Your task to perform on an android device: open app "Truecaller" Image 0: 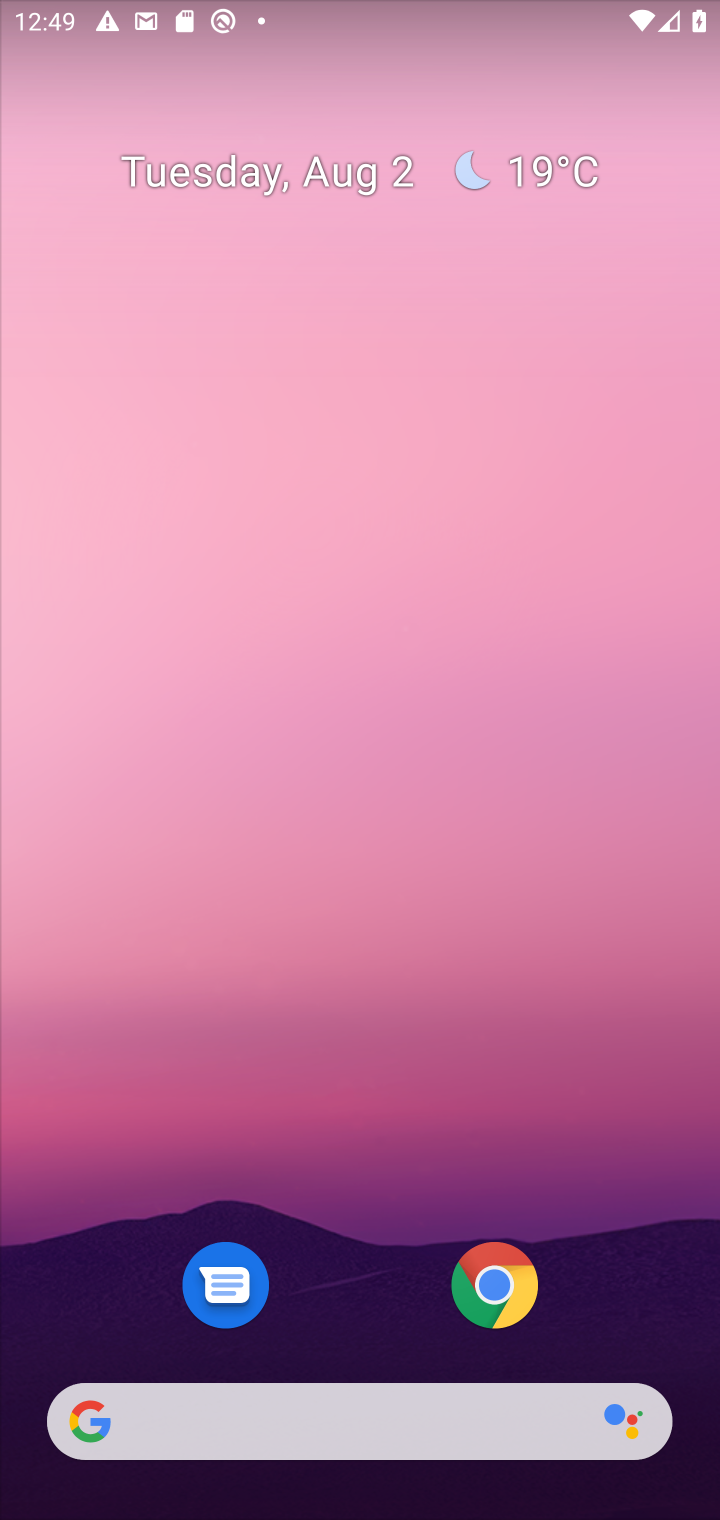
Step 0: drag from (371, 1283) to (325, 92)
Your task to perform on an android device: open app "Truecaller" Image 1: 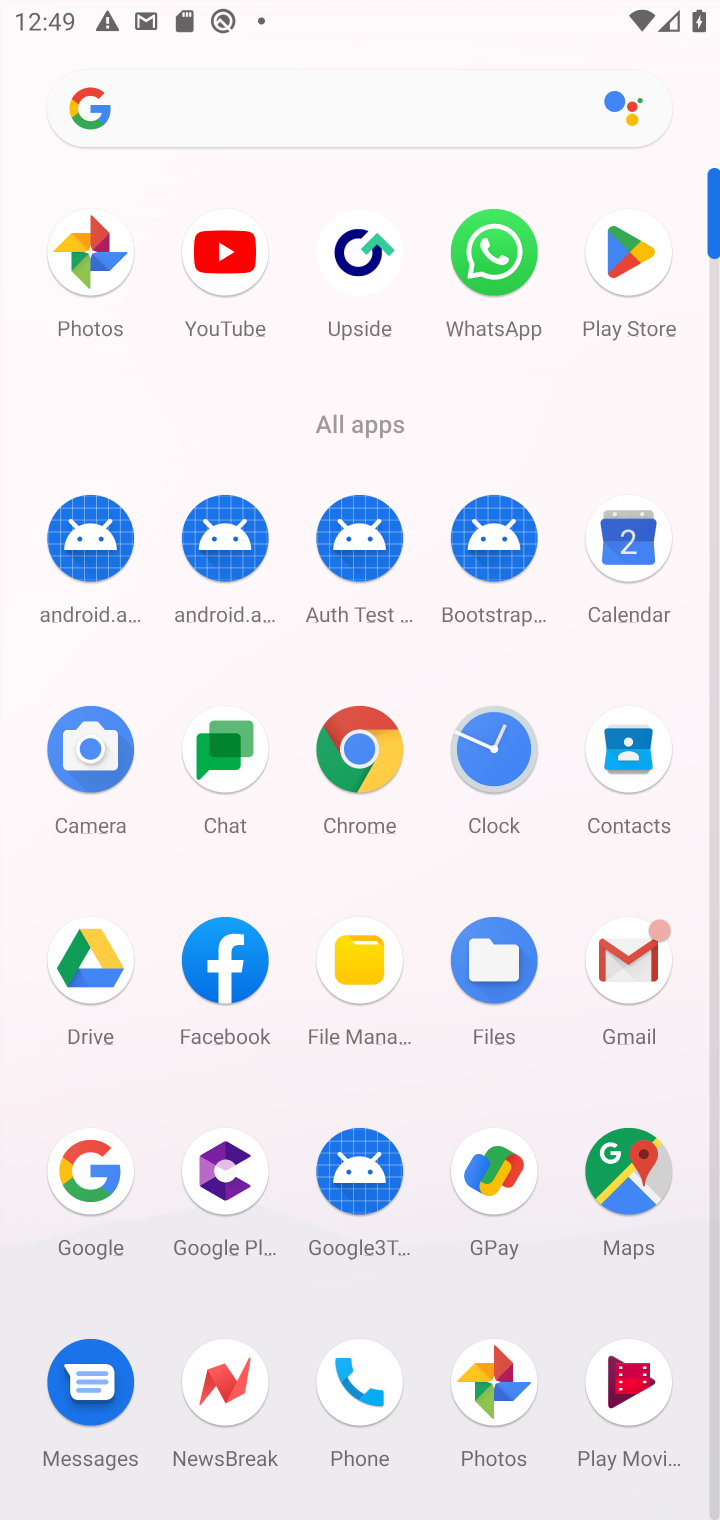
Step 1: drag from (286, 959) to (346, 213)
Your task to perform on an android device: open app "Truecaller" Image 2: 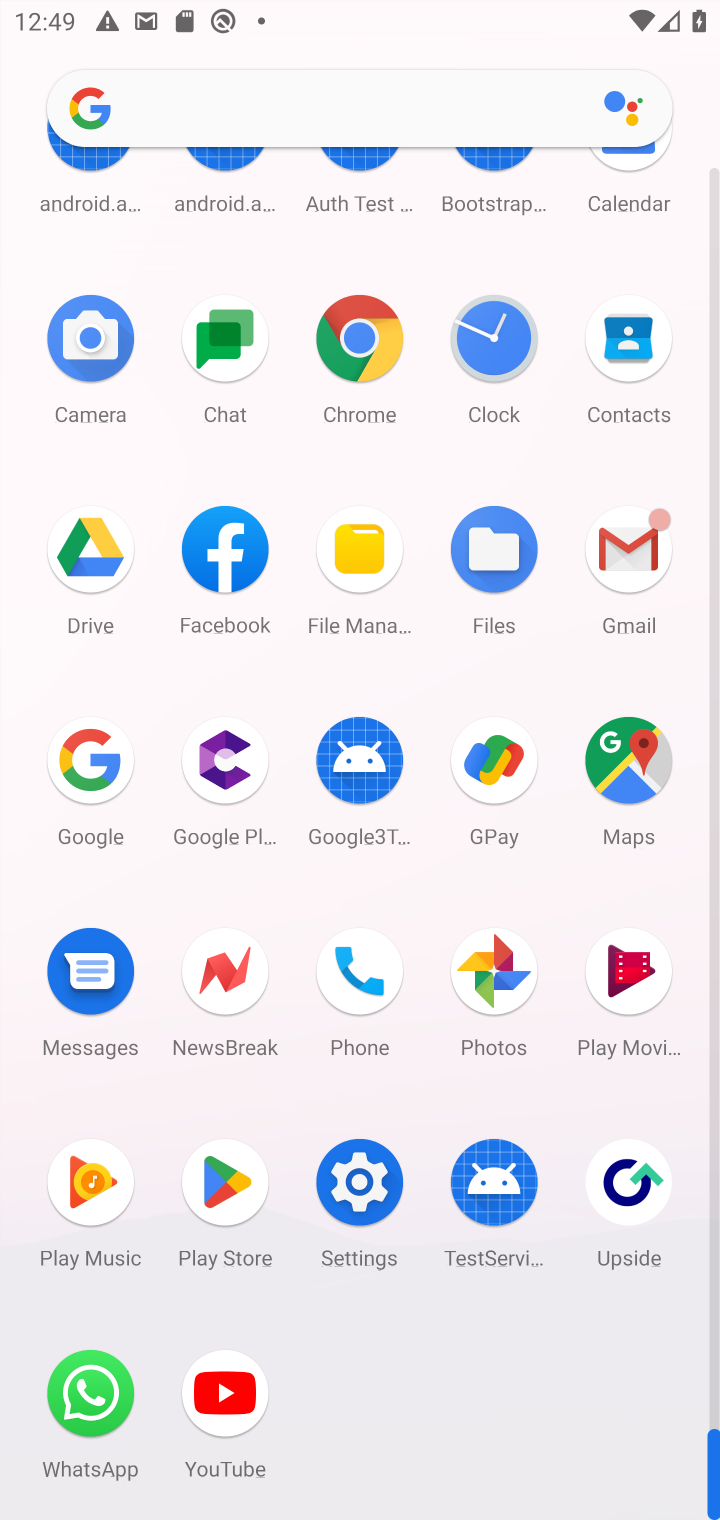
Step 2: click (220, 1165)
Your task to perform on an android device: open app "Truecaller" Image 3: 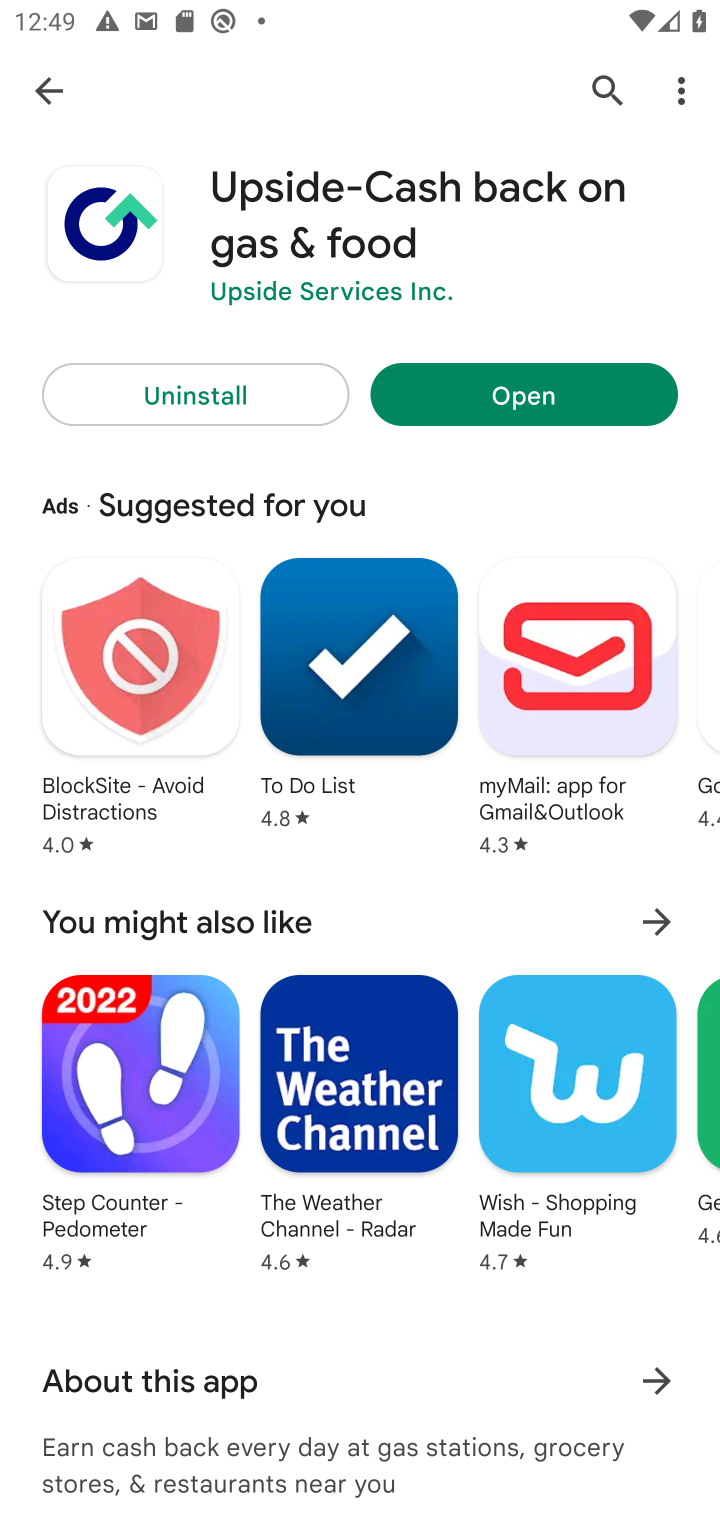
Step 3: click (52, 89)
Your task to perform on an android device: open app "Truecaller" Image 4: 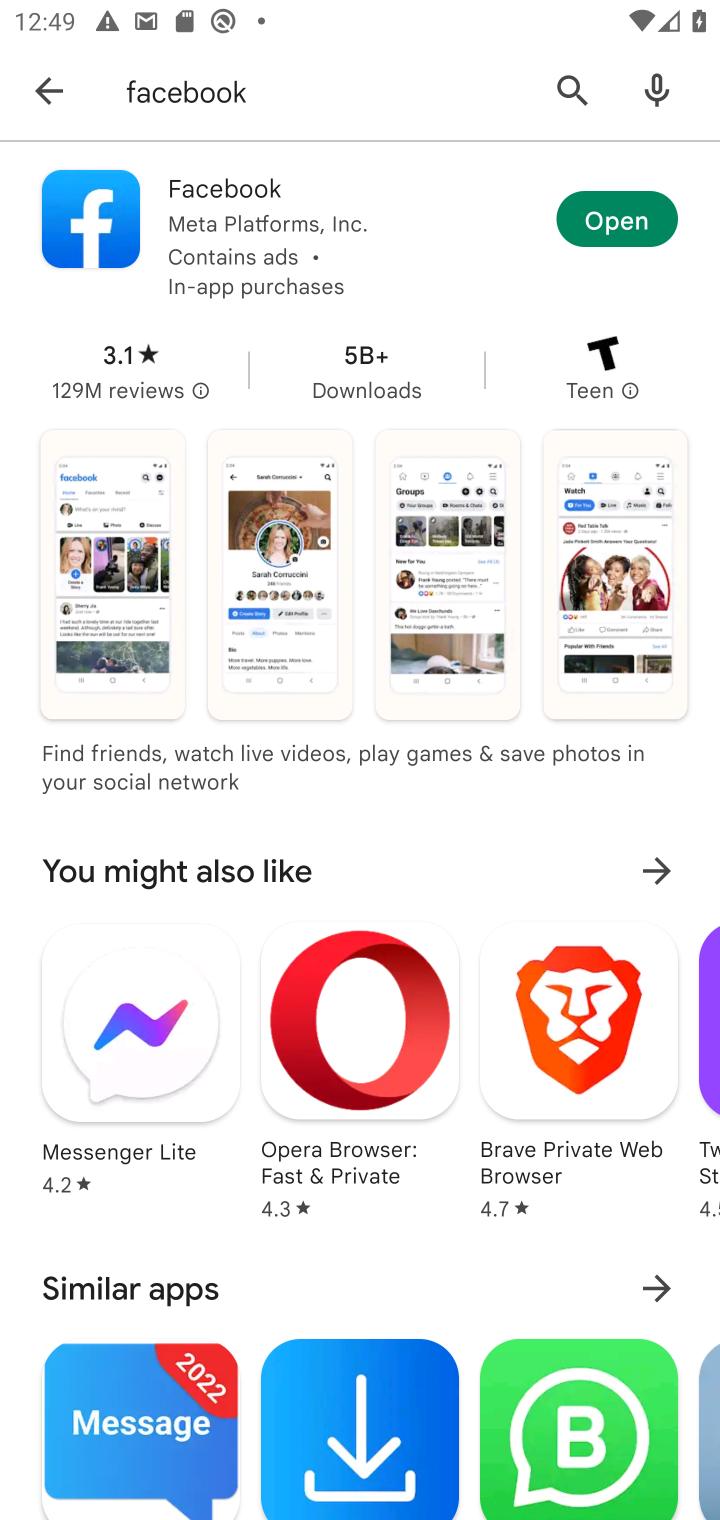
Step 4: click (37, 82)
Your task to perform on an android device: open app "Truecaller" Image 5: 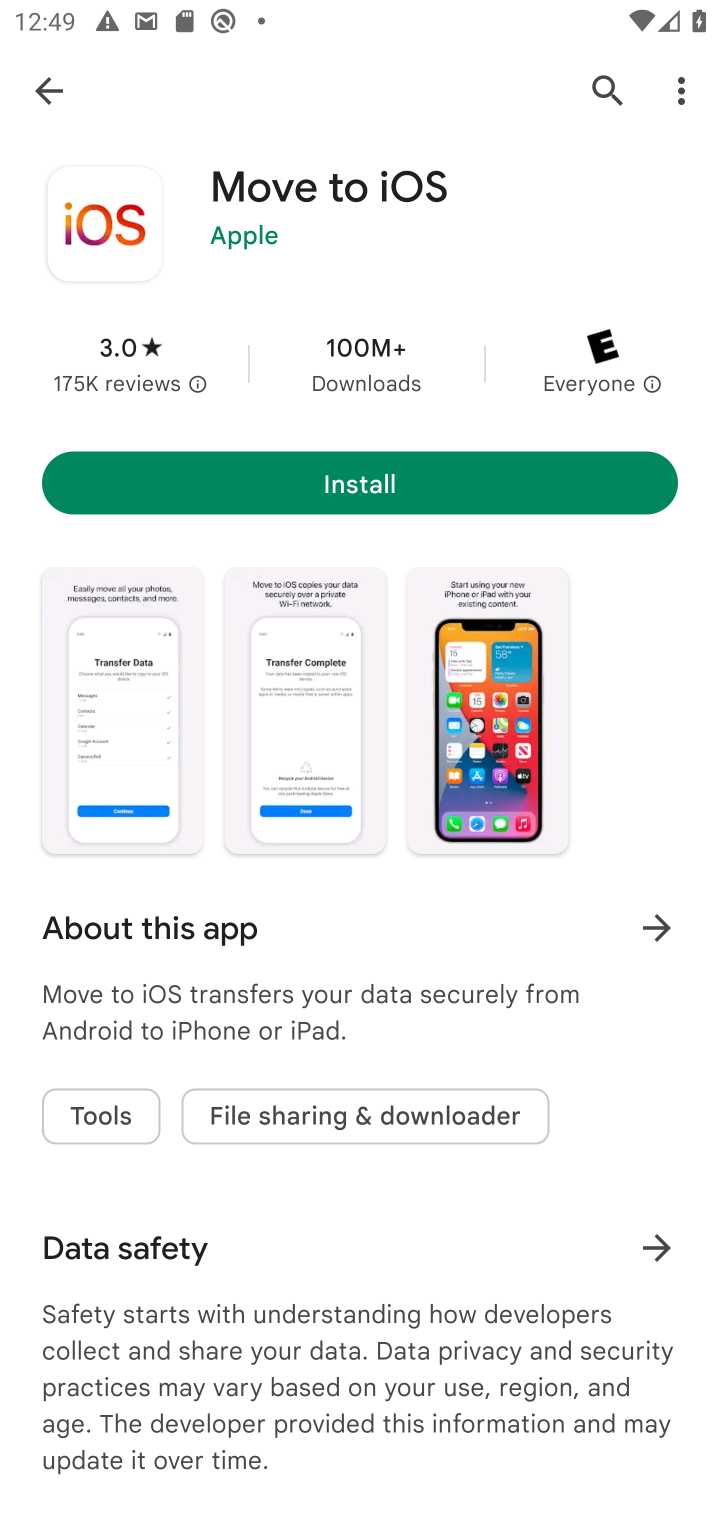
Step 5: click (55, 90)
Your task to perform on an android device: open app "Truecaller" Image 6: 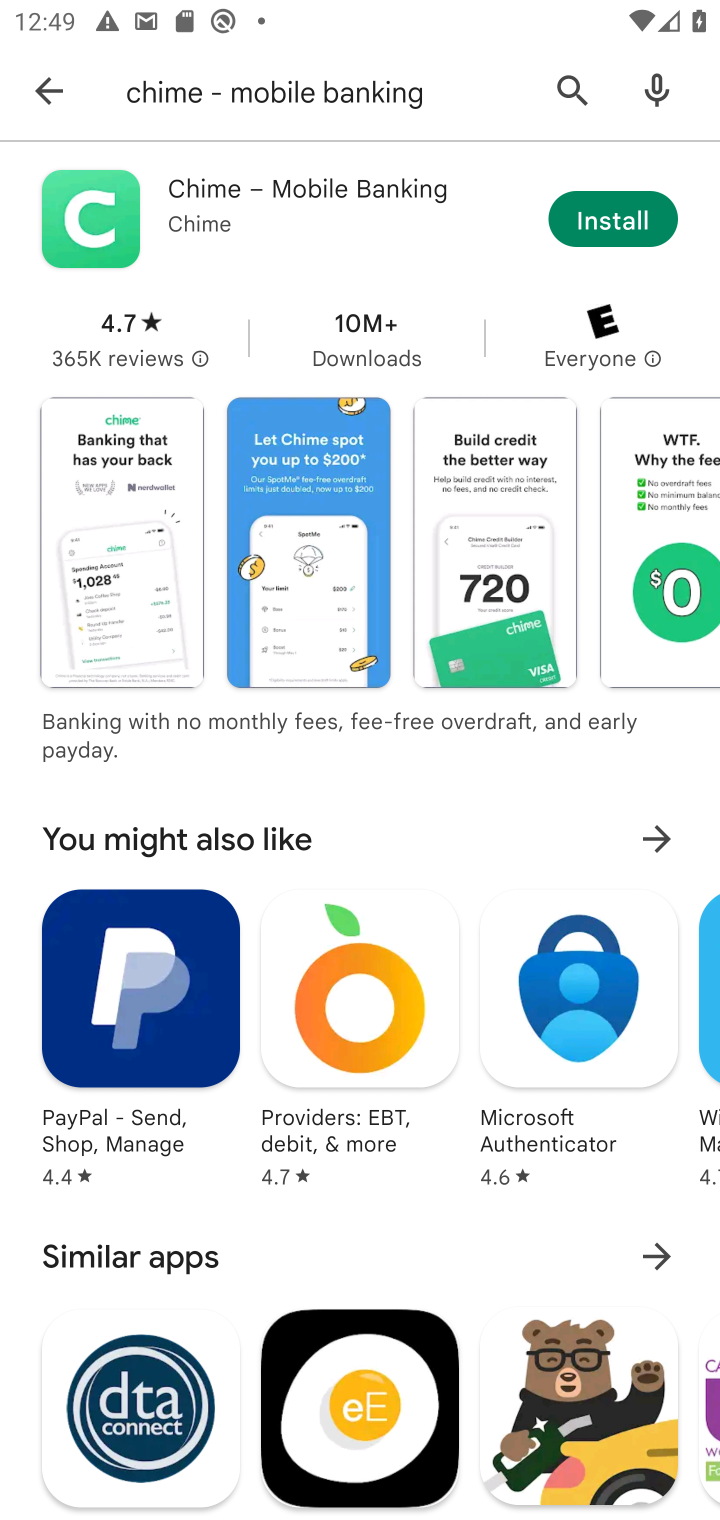
Step 6: click (561, 77)
Your task to perform on an android device: open app "Truecaller" Image 7: 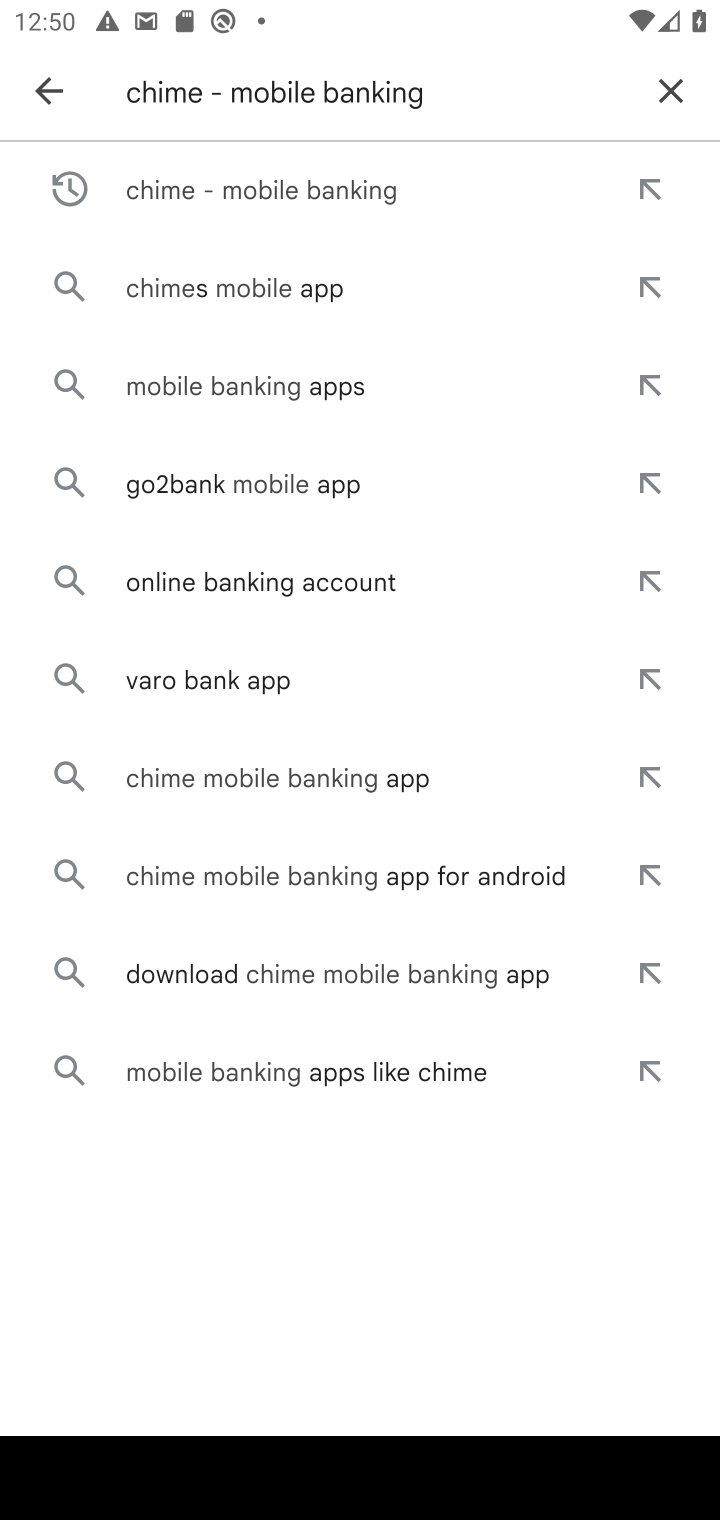
Step 7: click (677, 78)
Your task to perform on an android device: open app "Truecaller" Image 8: 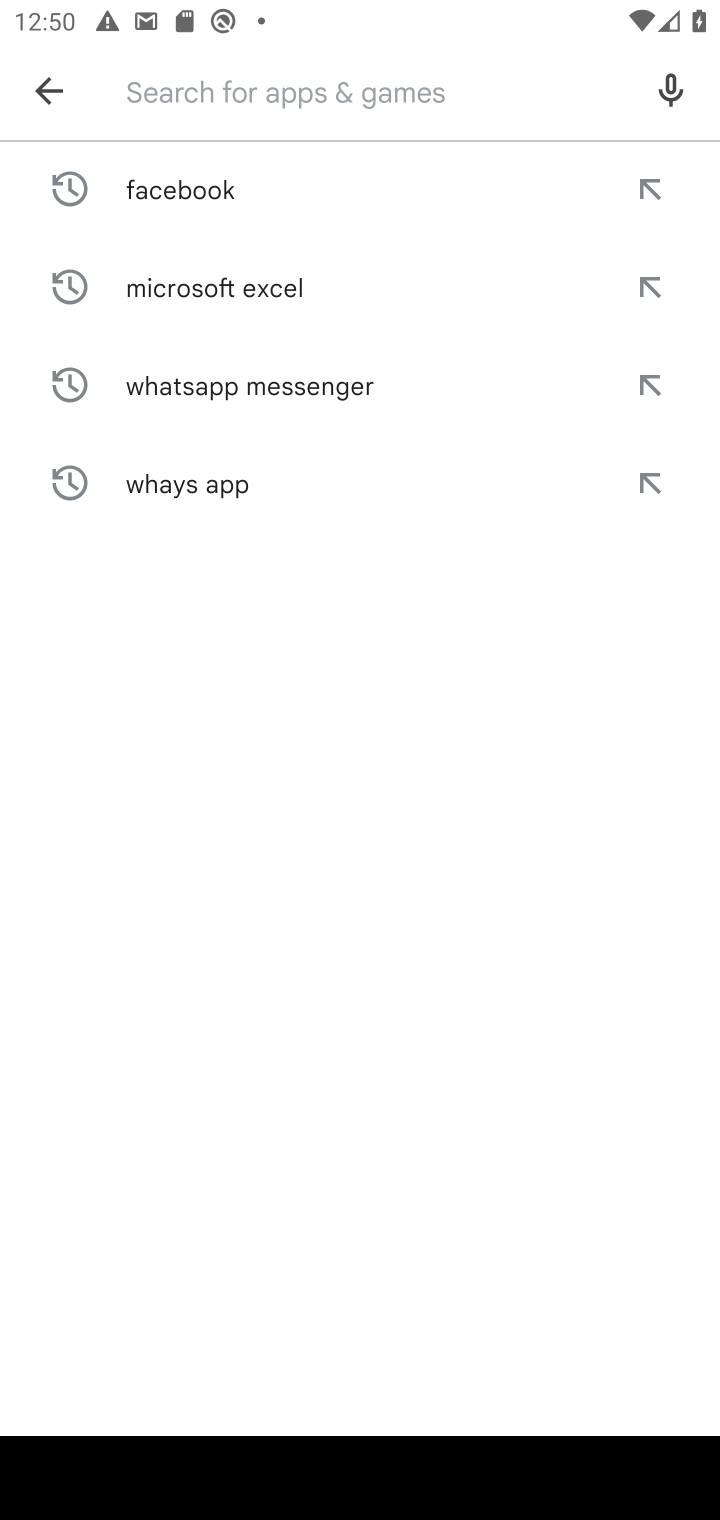
Step 8: type "Truecaller"
Your task to perform on an android device: open app "Truecaller" Image 9: 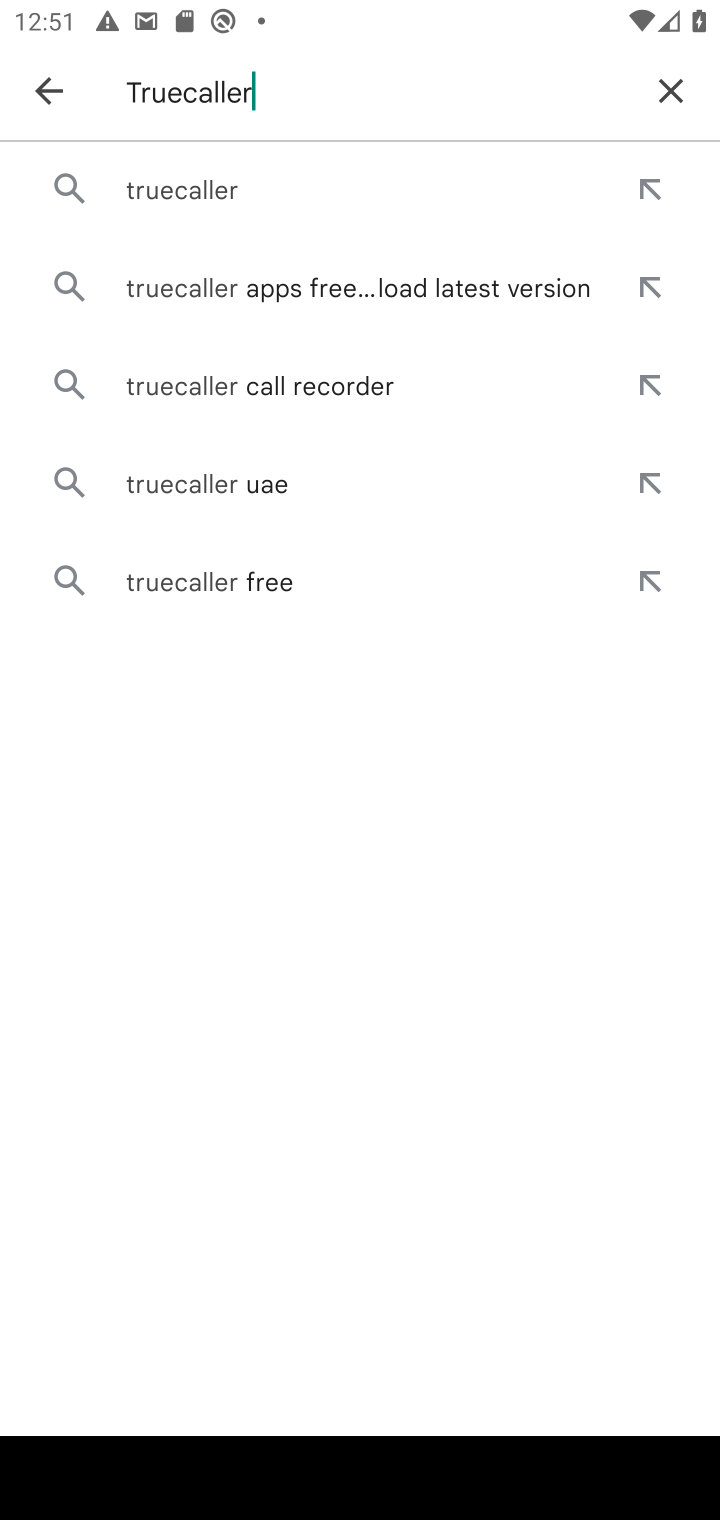
Step 9: click (158, 189)
Your task to perform on an android device: open app "Truecaller" Image 10: 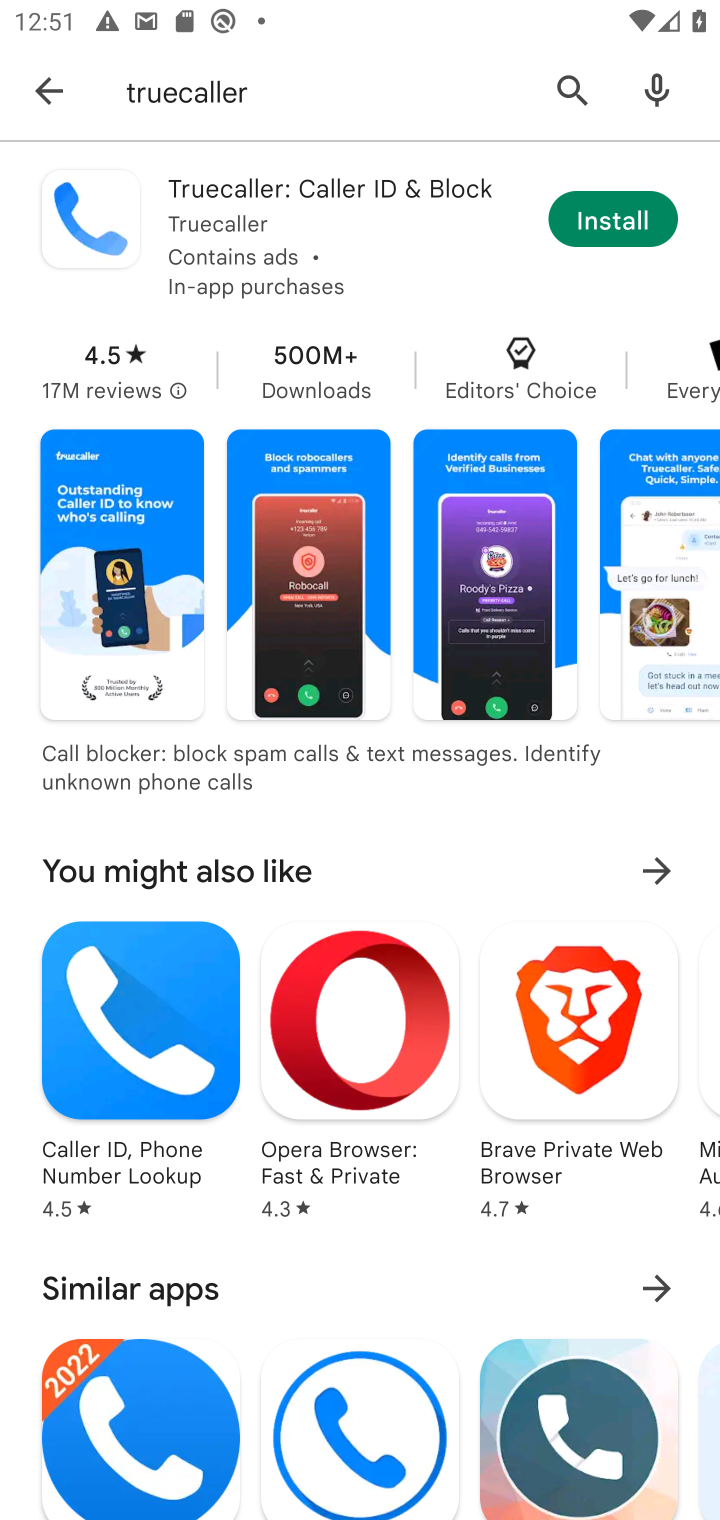
Step 10: click (633, 217)
Your task to perform on an android device: open app "Truecaller" Image 11: 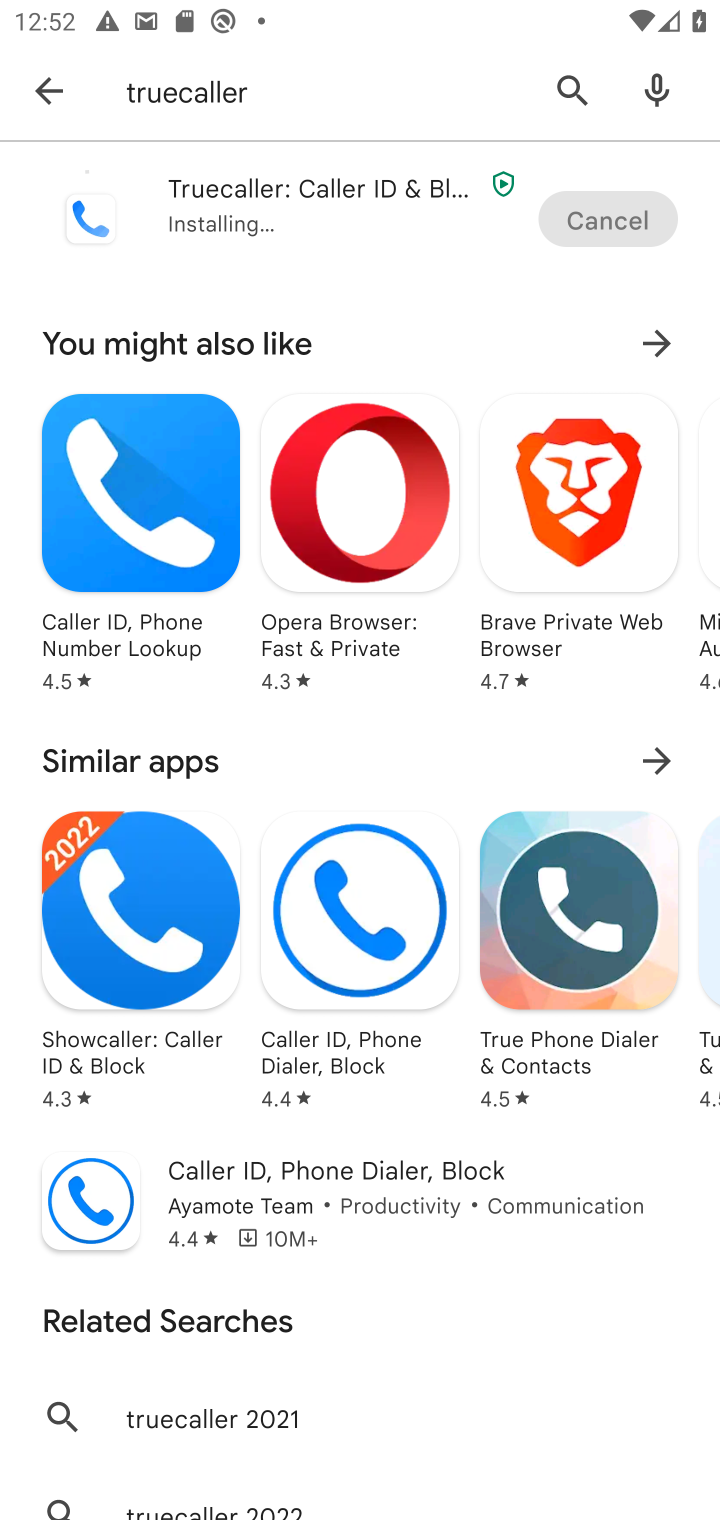
Step 11: task complete